Your task to perform on an android device: Check the weather Image 0: 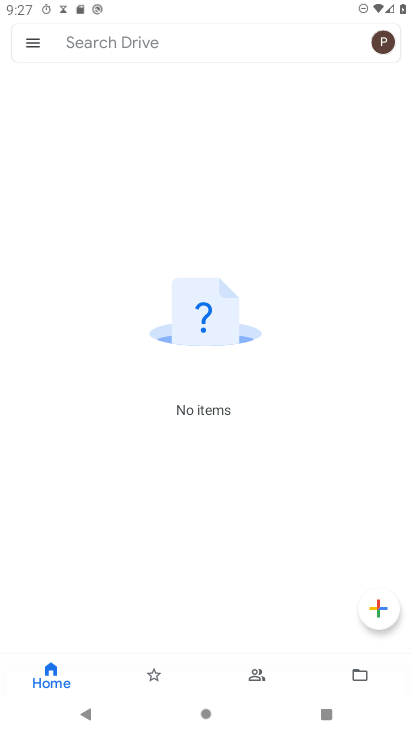
Step 0: press back button
Your task to perform on an android device: Check the weather Image 1: 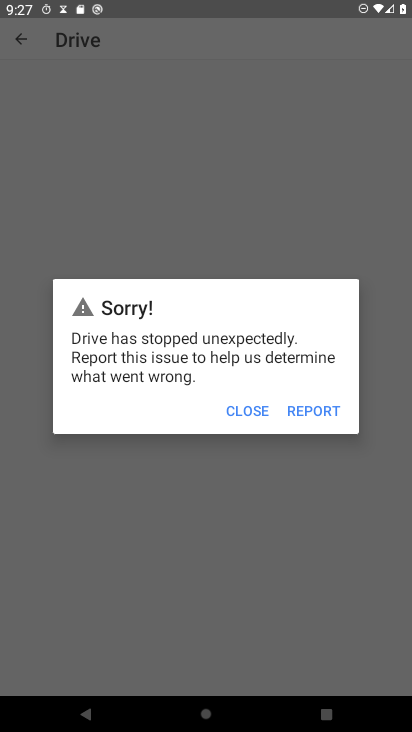
Step 1: click (234, 406)
Your task to perform on an android device: Check the weather Image 2: 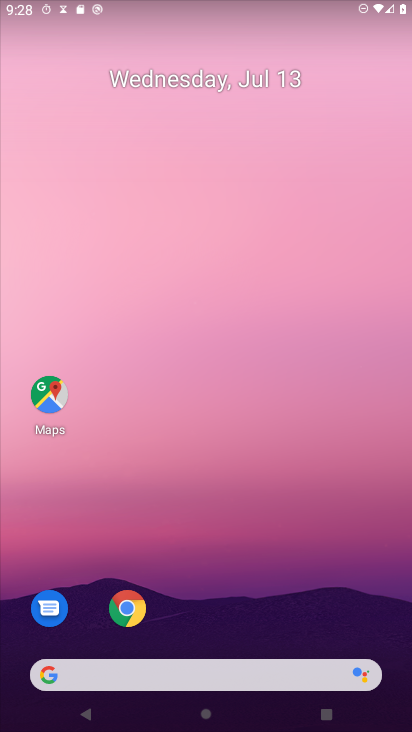
Step 2: drag from (263, 599) to (181, 18)
Your task to perform on an android device: Check the weather Image 3: 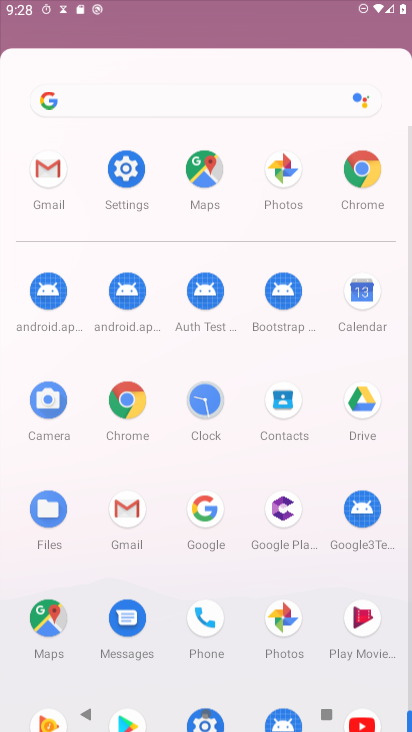
Step 3: drag from (235, 523) to (184, 92)
Your task to perform on an android device: Check the weather Image 4: 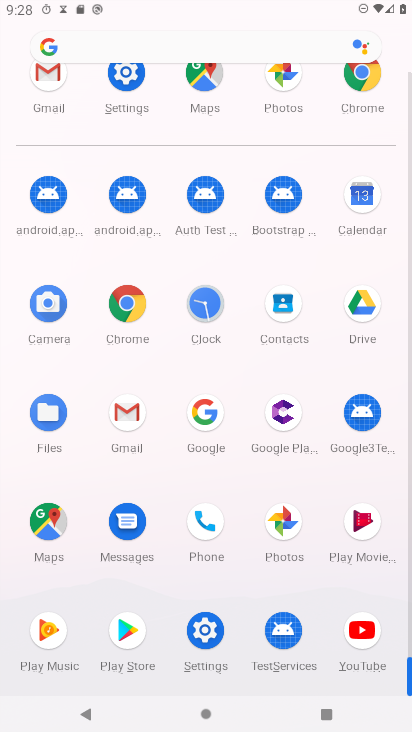
Step 4: click (363, 71)
Your task to perform on an android device: Check the weather Image 5: 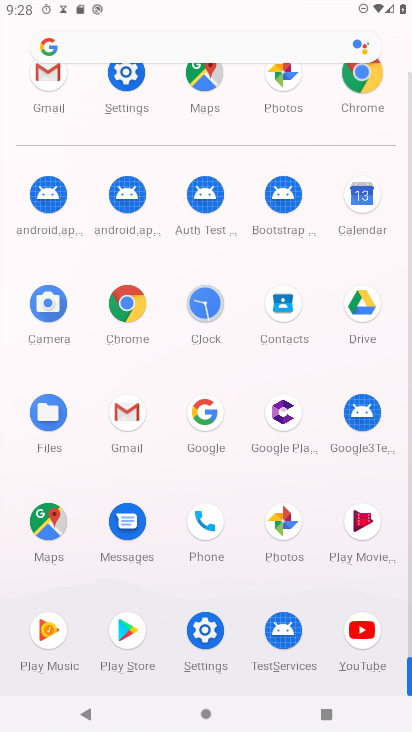
Step 5: click (363, 71)
Your task to perform on an android device: Check the weather Image 6: 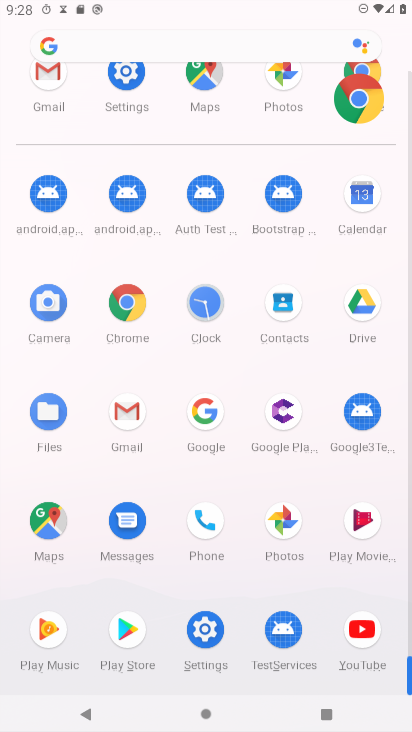
Step 6: click (363, 71)
Your task to perform on an android device: Check the weather Image 7: 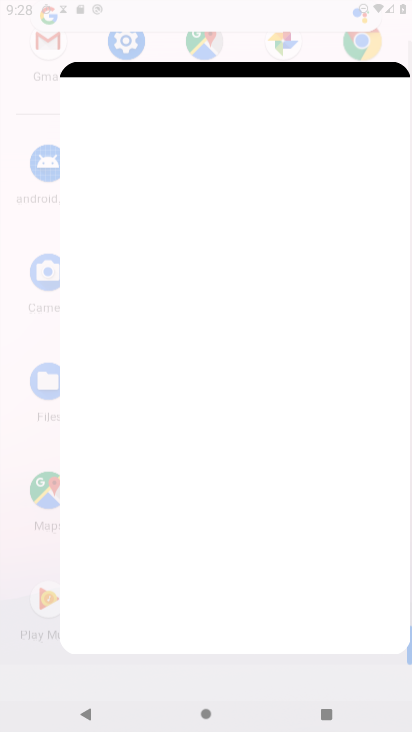
Step 7: click (363, 71)
Your task to perform on an android device: Check the weather Image 8: 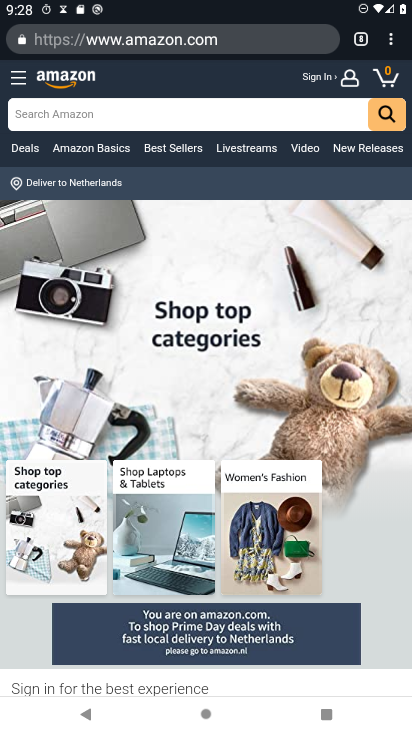
Step 8: drag from (388, 37) to (255, 76)
Your task to perform on an android device: Check the weather Image 9: 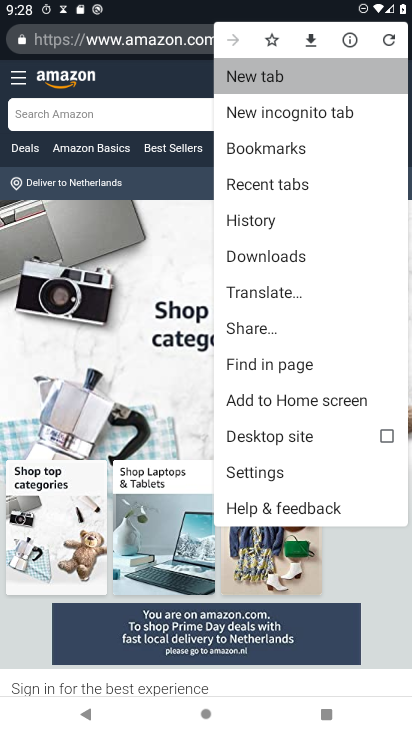
Step 9: click (255, 76)
Your task to perform on an android device: Check the weather Image 10: 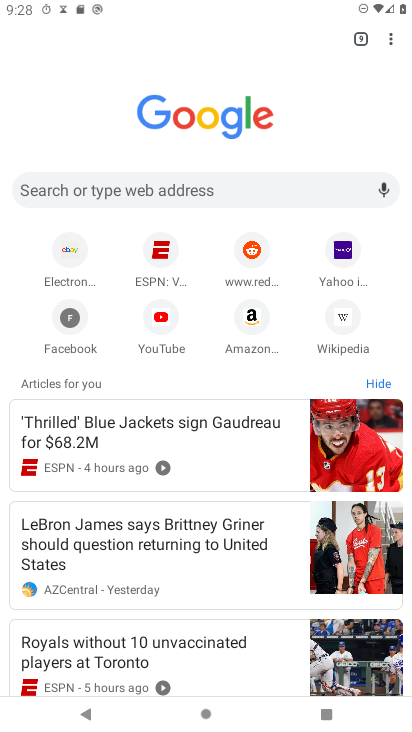
Step 10: click (98, 187)
Your task to perform on an android device: Check the weather Image 11: 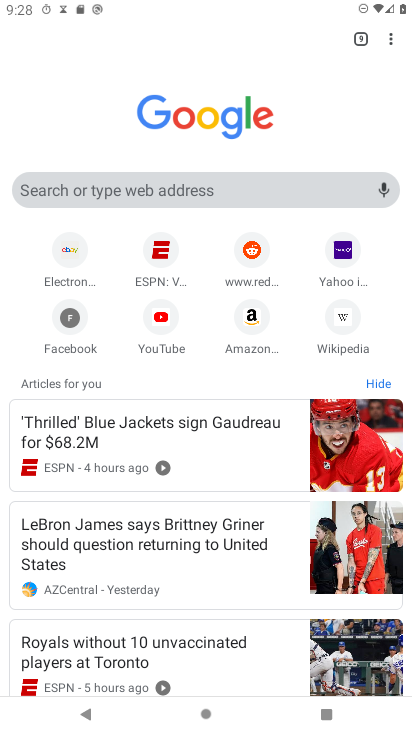
Step 11: click (97, 186)
Your task to perform on an android device: Check the weather Image 12: 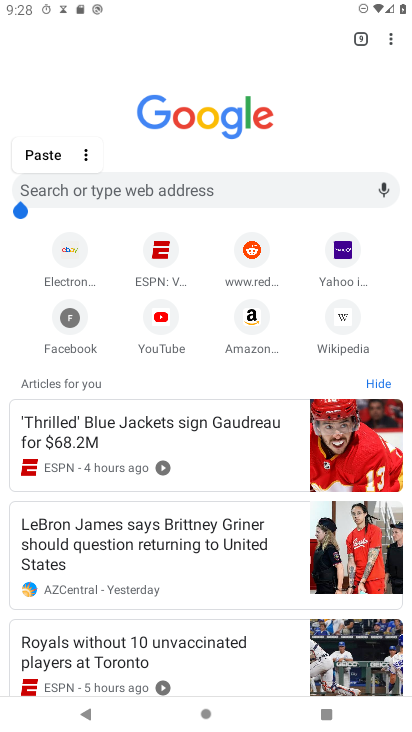
Step 12: click (108, 179)
Your task to perform on an android device: Check the weather Image 13: 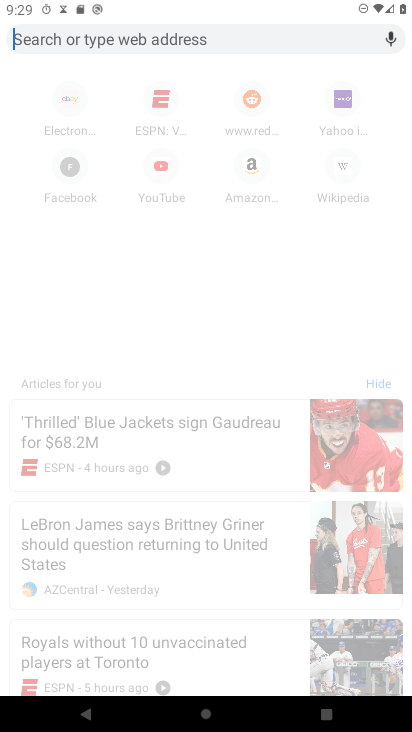
Step 13: type "weather"
Your task to perform on an android device: Check the weather Image 14: 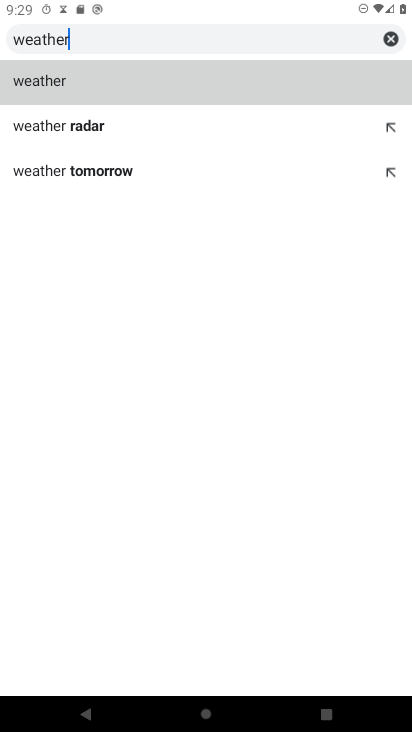
Step 14: click (57, 97)
Your task to perform on an android device: Check the weather Image 15: 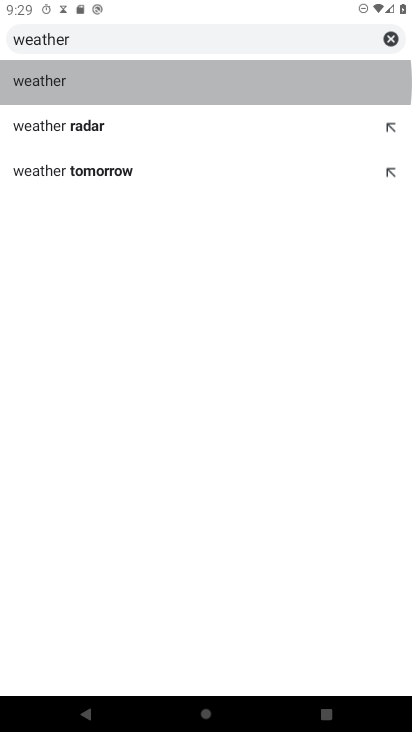
Step 15: click (58, 95)
Your task to perform on an android device: Check the weather Image 16: 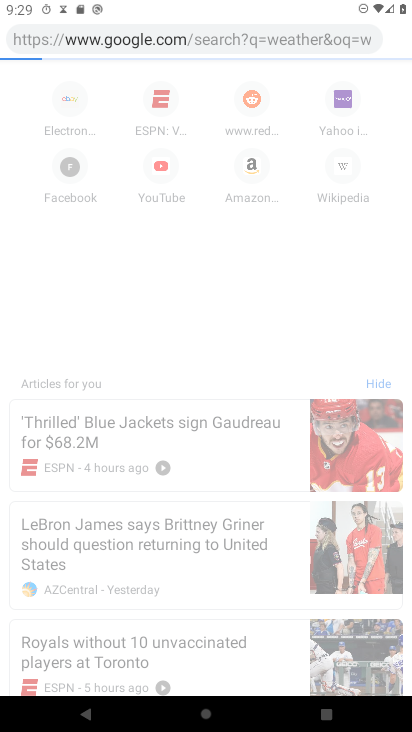
Step 16: click (64, 95)
Your task to perform on an android device: Check the weather Image 17: 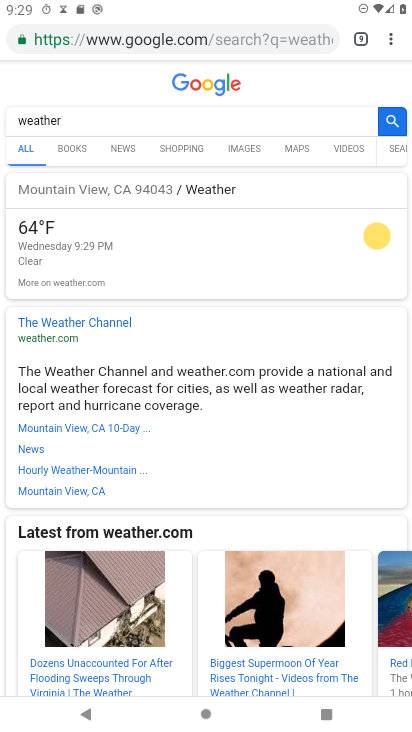
Step 17: task complete